Your task to perform on an android device: Open Reddit.com Image 0: 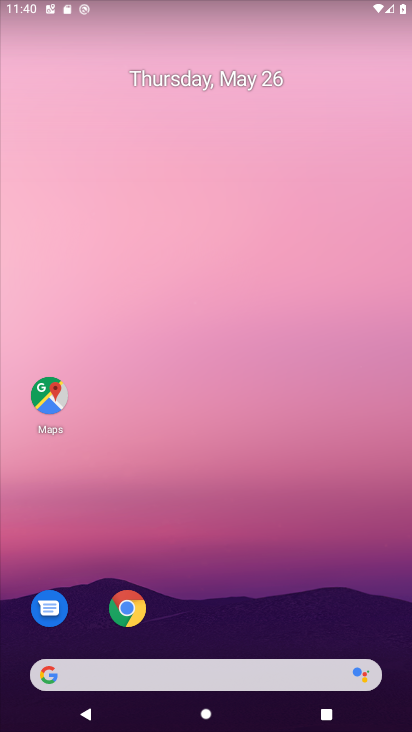
Step 0: click (130, 606)
Your task to perform on an android device: Open Reddit.com Image 1: 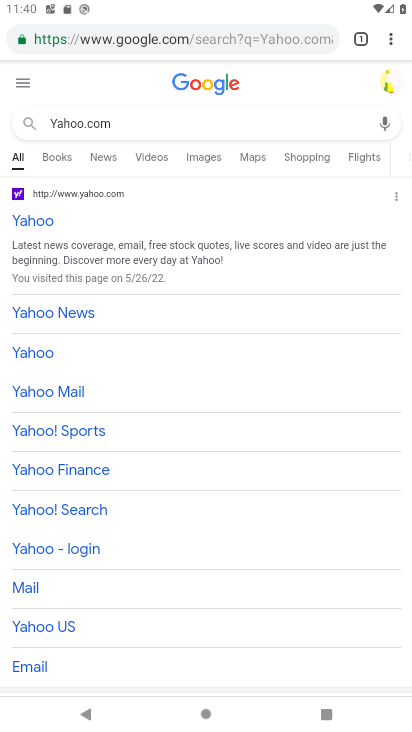
Step 1: click (109, 117)
Your task to perform on an android device: Open Reddit.com Image 2: 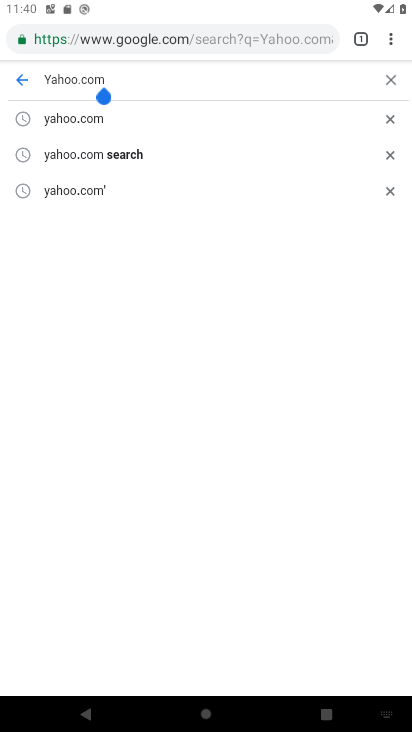
Step 2: click (327, 31)
Your task to perform on an android device: Open Reddit.com Image 3: 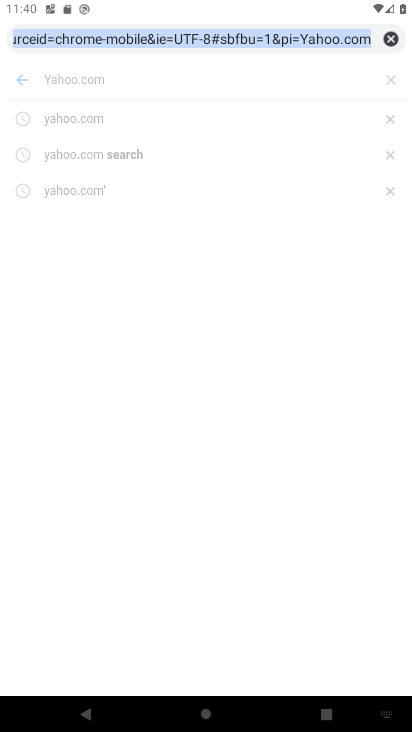
Step 3: click (395, 36)
Your task to perform on an android device: Open Reddit.com Image 4: 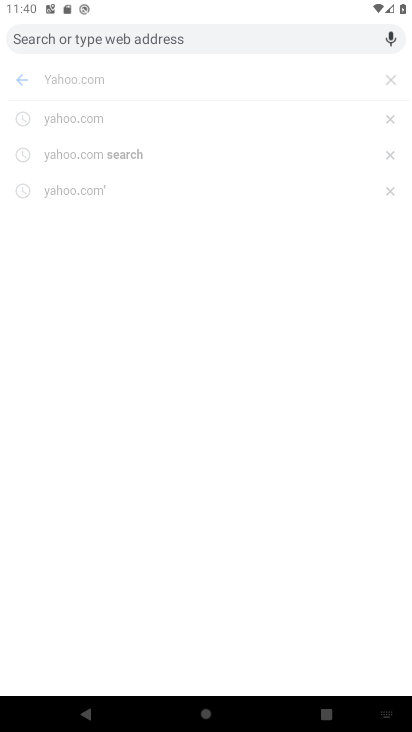
Step 4: type "Reddit.com"
Your task to perform on an android device: Open Reddit.com Image 5: 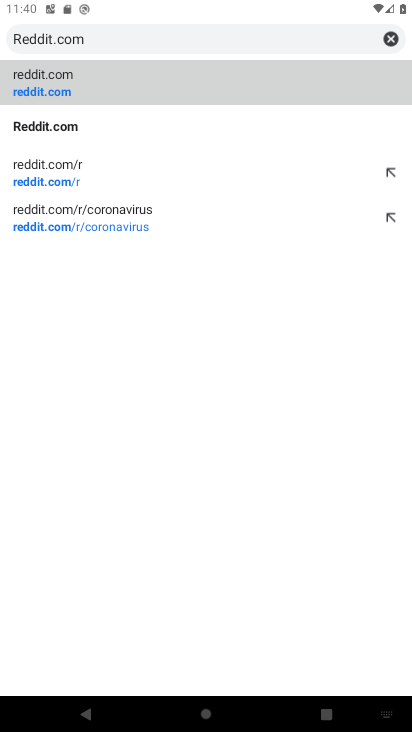
Step 5: click (58, 124)
Your task to perform on an android device: Open Reddit.com Image 6: 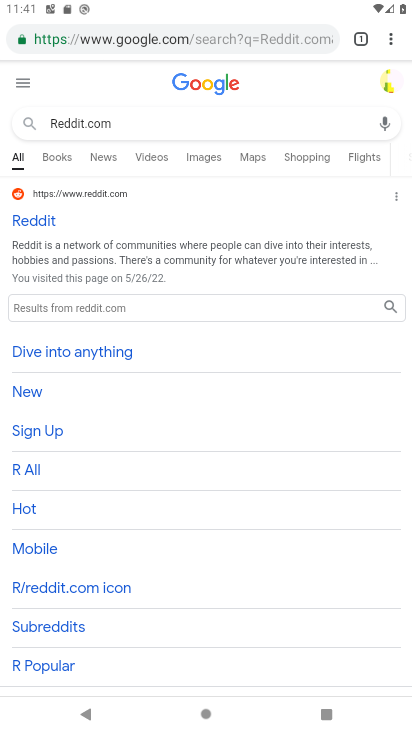
Step 6: task complete